Your task to perform on an android device: Open CNN.com Image 0: 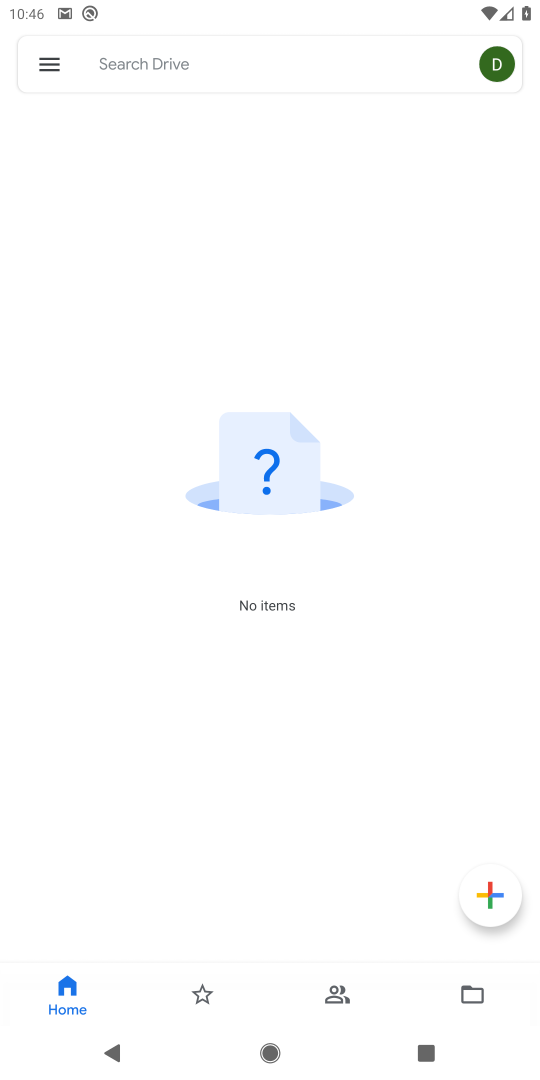
Step 0: press home button
Your task to perform on an android device: Open CNN.com Image 1: 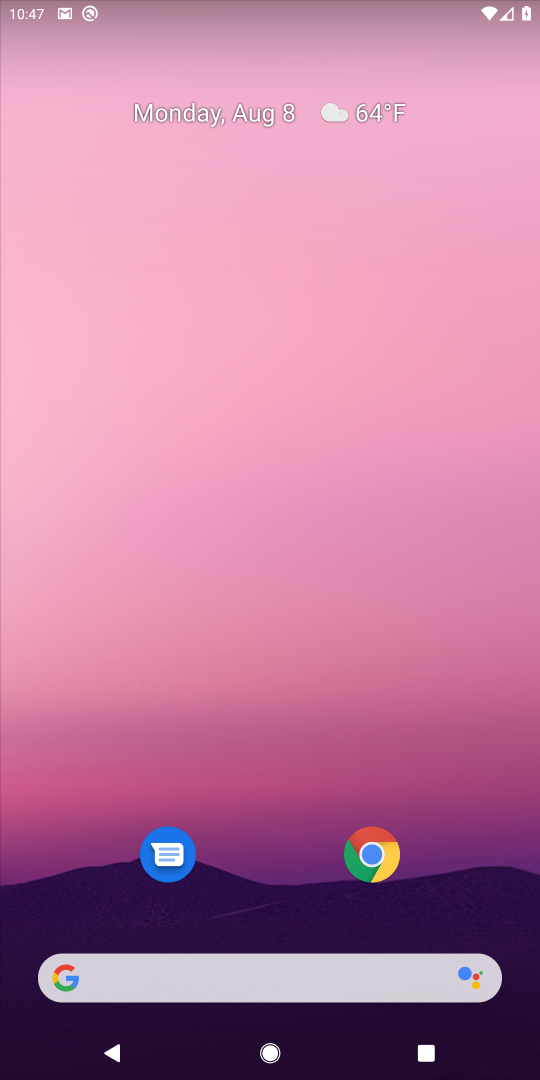
Step 1: click (211, 966)
Your task to perform on an android device: Open CNN.com Image 2: 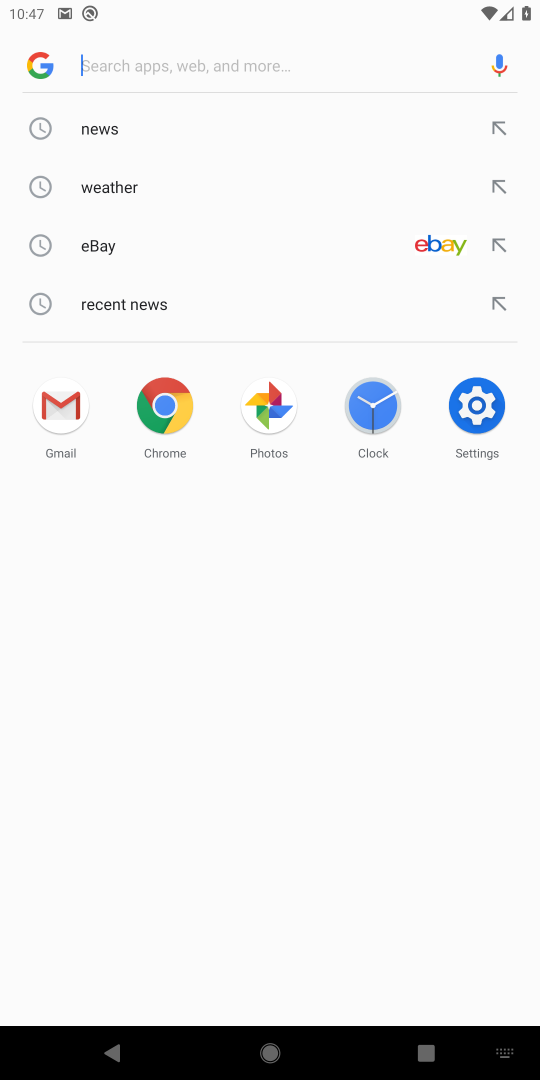
Step 2: type "cnn"
Your task to perform on an android device: Open CNN.com Image 3: 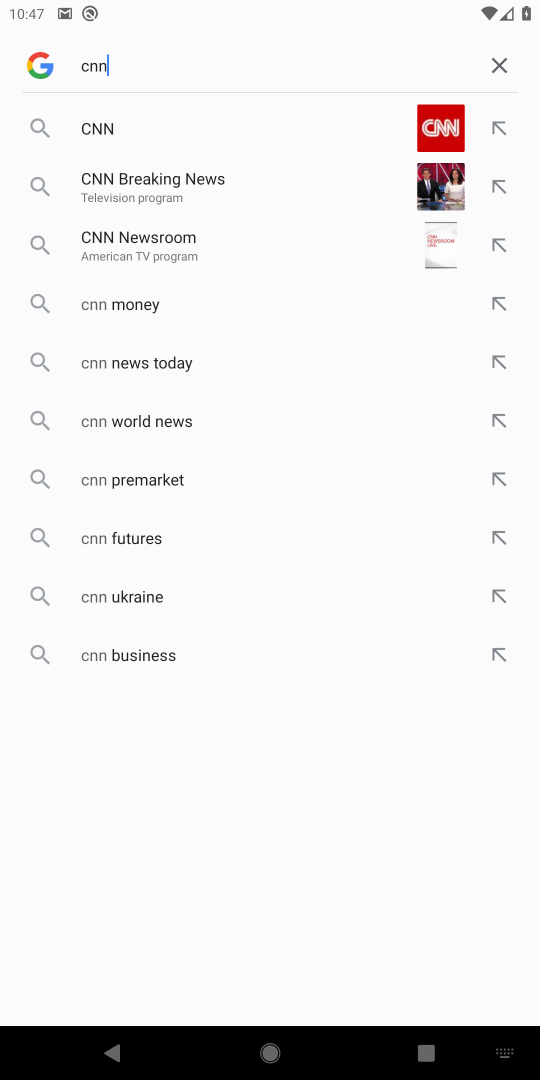
Step 3: click (432, 119)
Your task to perform on an android device: Open CNN.com Image 4: 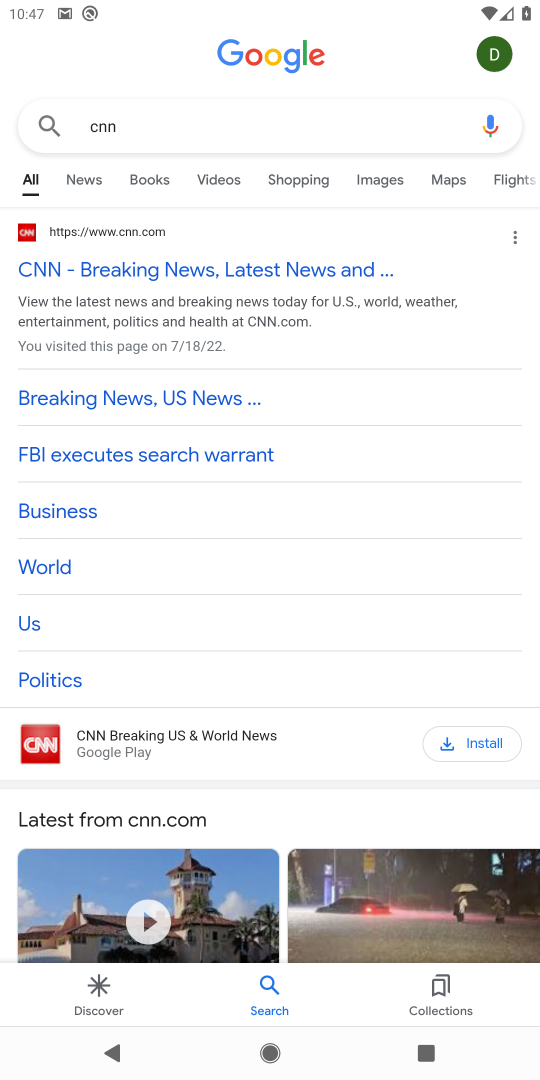
Step 4: task complete